Your task to perform on an android device: add a contact in the contacts app Image 0: 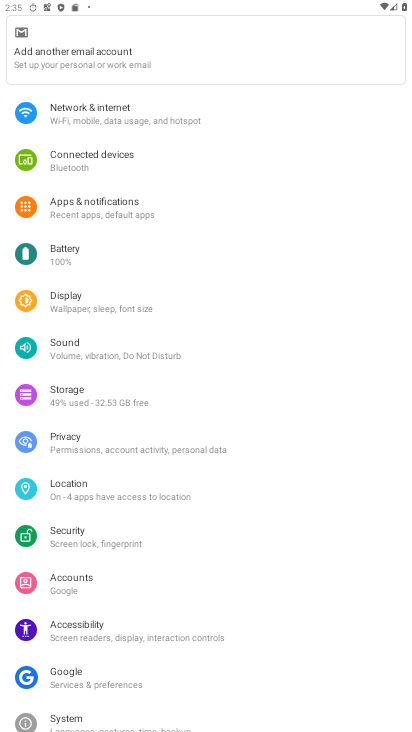
Step 0: press home button
Your task to perform on an android device: add a contact in the contacts app Image 1: 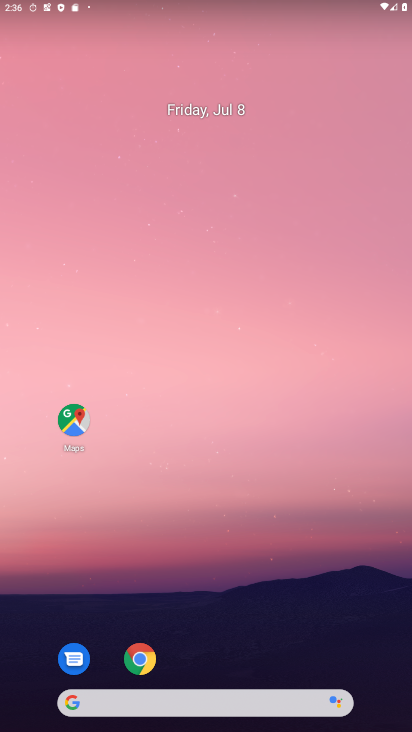
Step 1: drag from (302, 568) to (319, 167)
Your task to perform on an android device: add a contact in the contacts app Image 2: 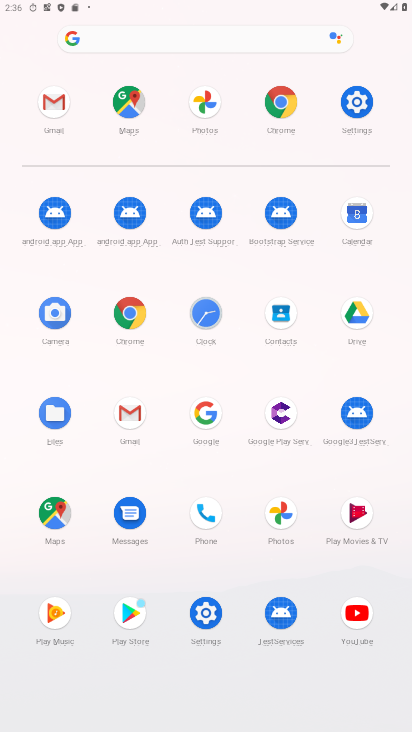
Step 2: click (278, 313)
Your task to perform on an android device: add a contact in the contacts app Image 3: 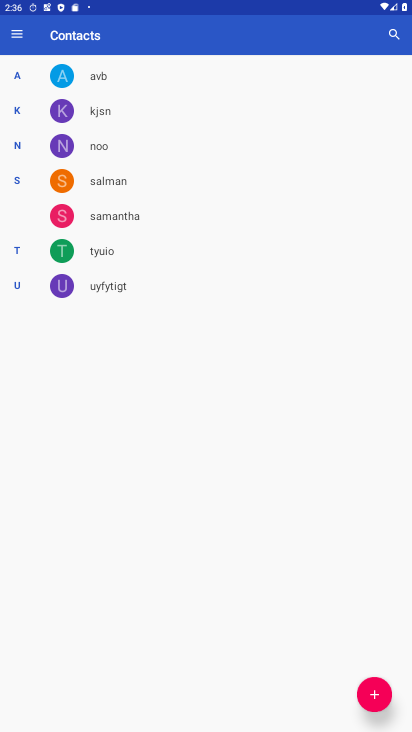
Step 3: click (379, 695)
Your task to perform on an android device: add a contact in the contacts app Image 4: 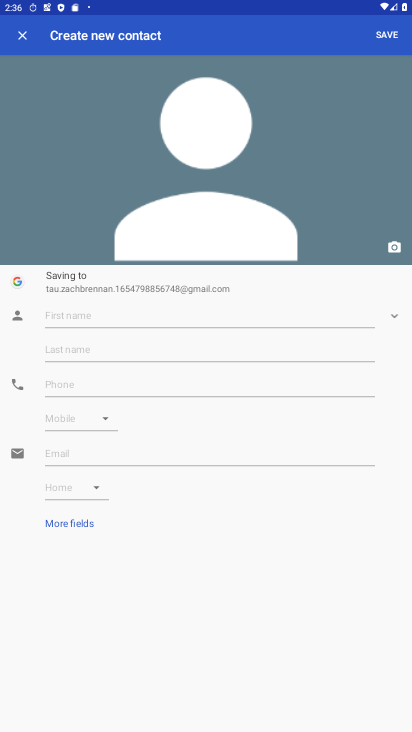
Step 4: click (79, 314)
Your task to perform on an android device: add a contact in the contacts app Image 5: 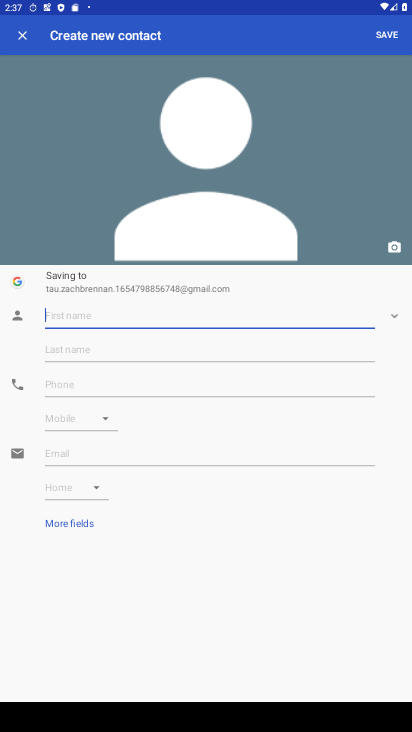
Step 5: type "mk"
Your task to perform on an android device: add a contact in the contacts app Image 6: 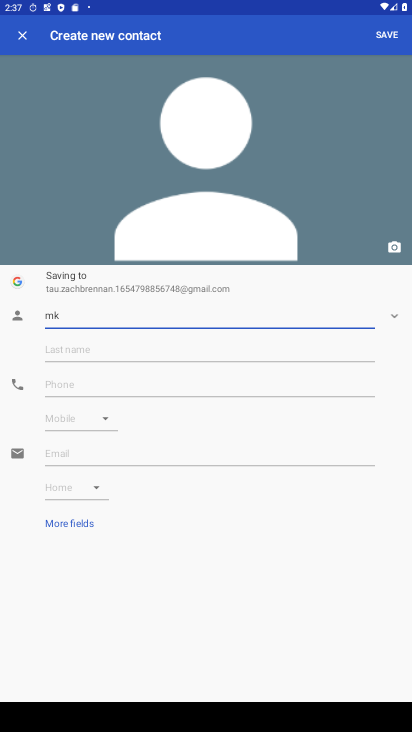
Step 6: click (199, 388)
Your task to perform on an android device: add a contact in the contacts app Image 7: 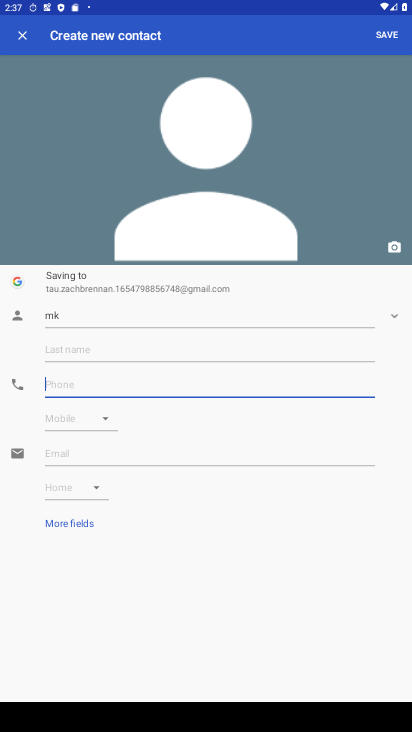
Step 7: type "8989898989"
Your task to perform on an android device: add a contact in the contacts app Image 8: 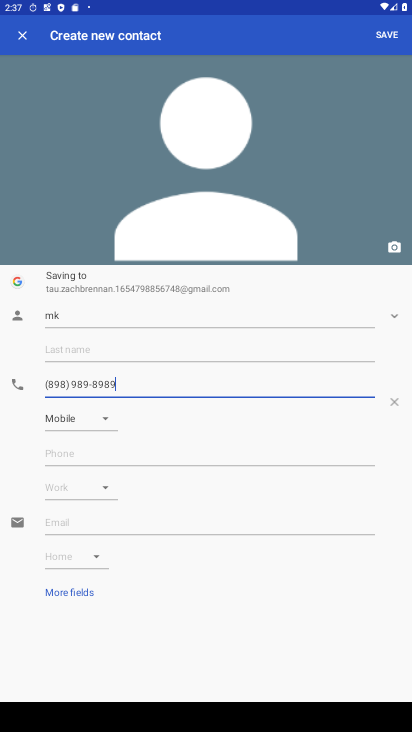
Step 8: click (373, 32)
Your task to perform on an android device: add a contact in the contacts app Image 9: 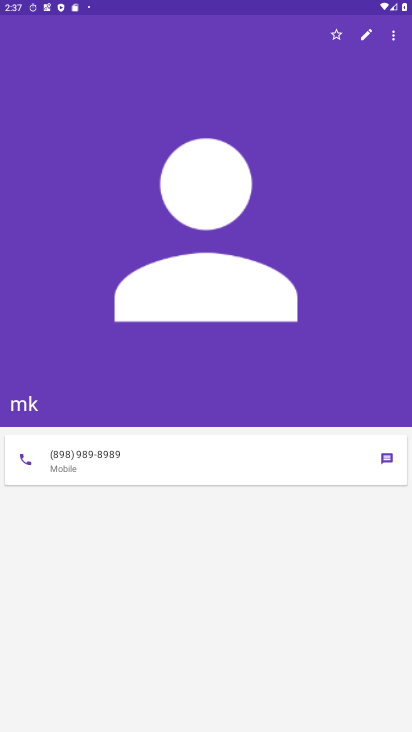
Step 9: task complete